Your task to perform on an android device: clear all cookies in the chrome app Image 0: 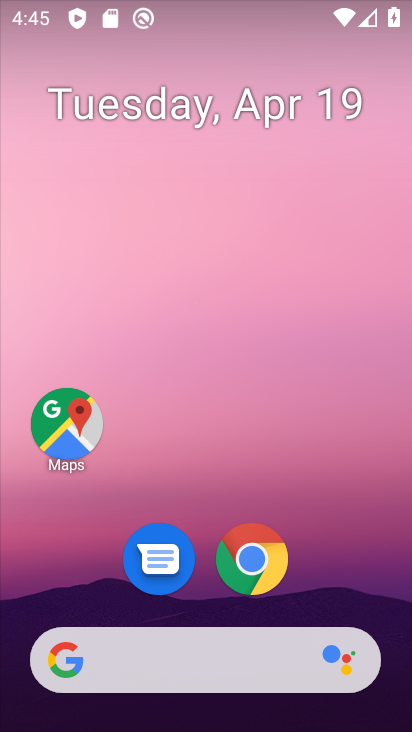
Step 0: click (283, 550)
Your task to perform on an android device: clear all cookies in the chrome app Image 1: 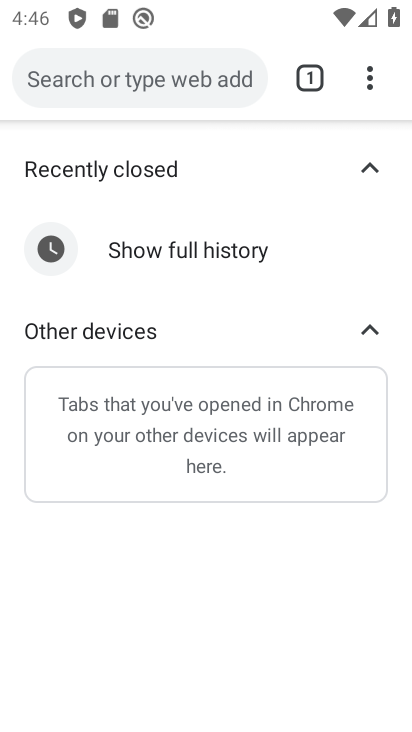
Step 1: click (379, 67)
Your task to perform on an android device: clear all cookies in the chrome app Image 2: 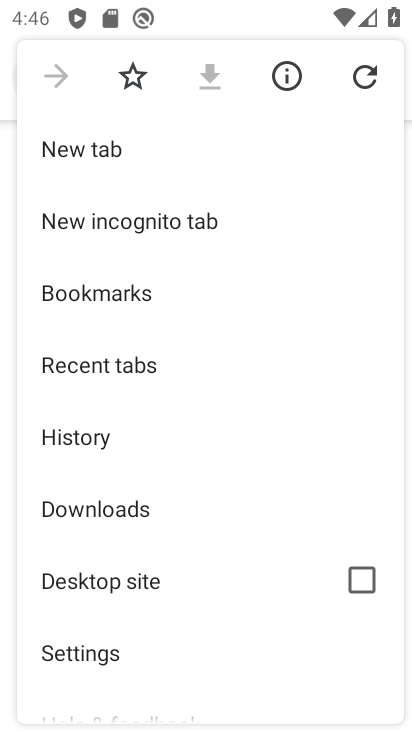
Step 2: click (154, 434)
Your task to perform on an android device: clear all cookies in the chrome app Image 3: 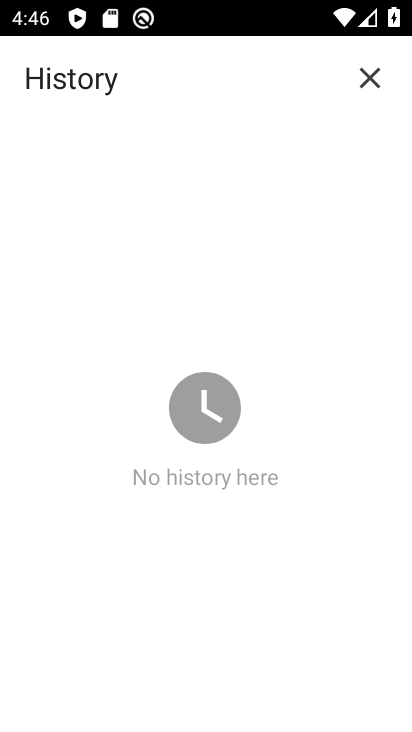
Step 3: task complete